Your task to perform on an android device: Open Android settings Image 0: 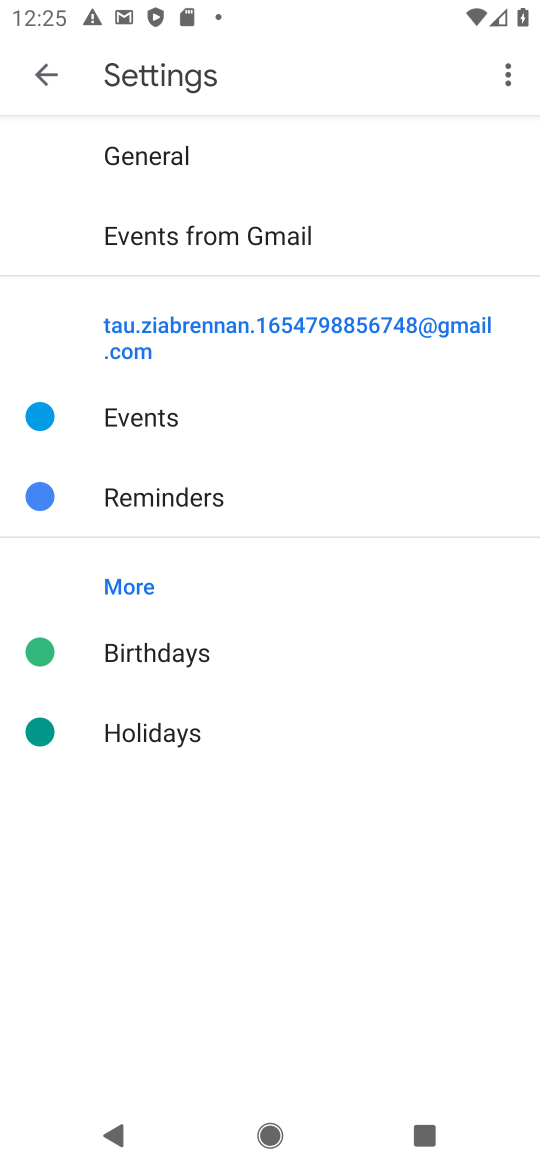
Step 0: drag from (205, 858) to (201, 169)
Your task to perform on an android device: Open Android settings Image 1: 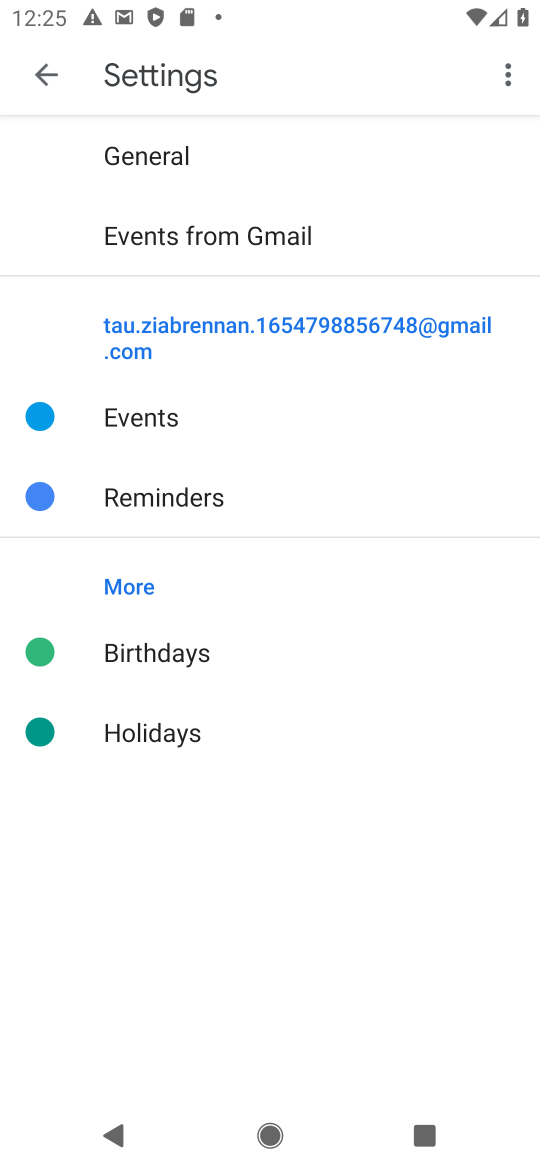
Step 1: drag from (266, 756) to (287, 186)
Your task to perform on an android device: Open Android settings Image 2: 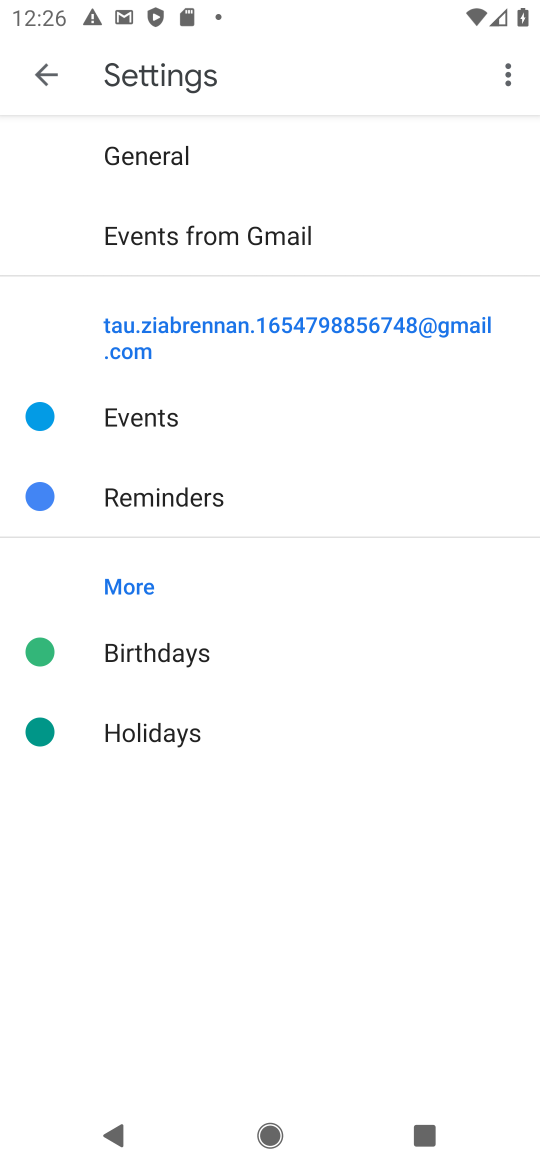
Step 2: drag from (276, 573) to (339, 176)
Your task to perform on an android device: Open Android settings Image 3: 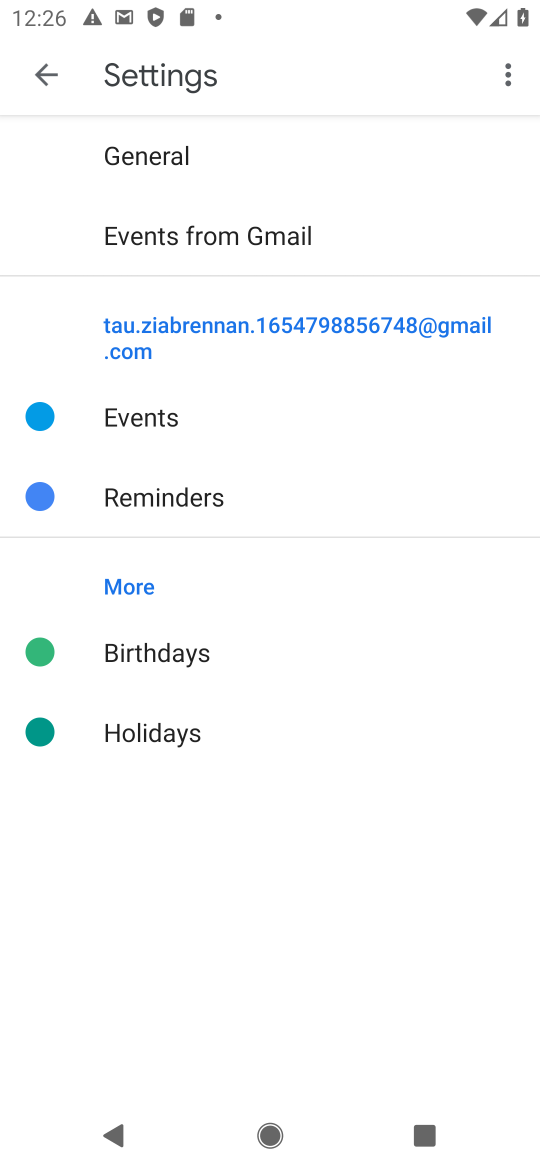
Step 3: drag from (315, 957) to (328, 430)
Your task to perform on an android device: Open Android settings Image 4: 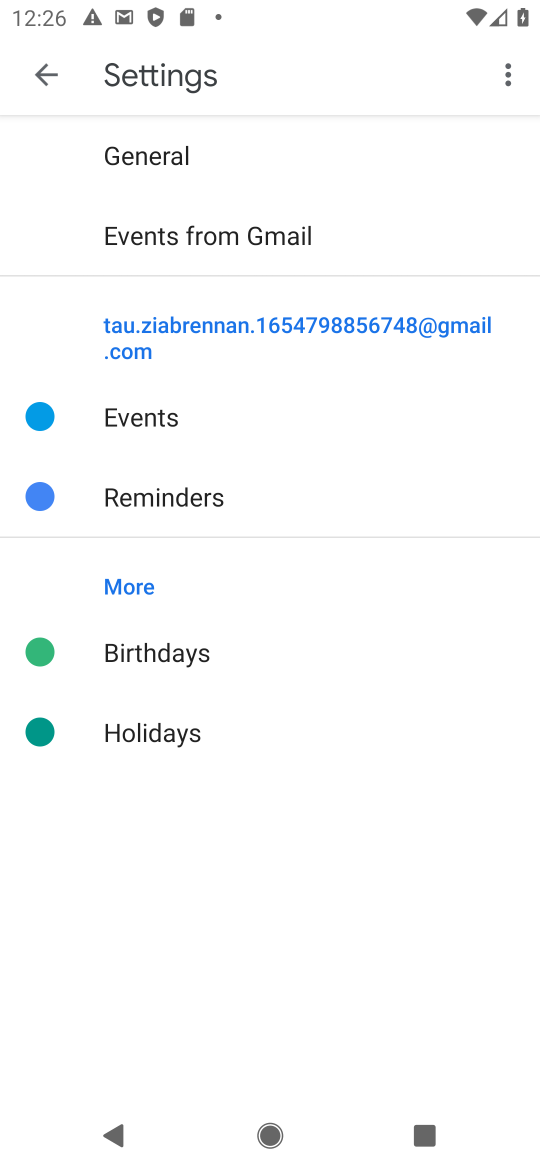
Step 4: press home button
Your task to perform on an android device: Open Android settings Image 5: 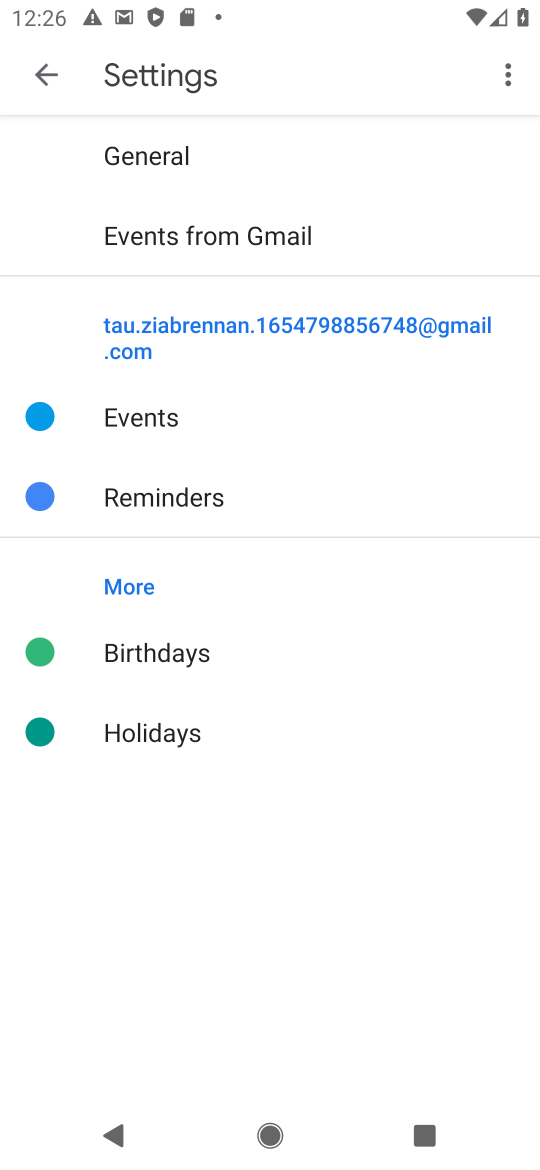
Step 5: drag from (314, 555) to (309, 277)
Your task to perform on an android device: Open Android settings Image 6: 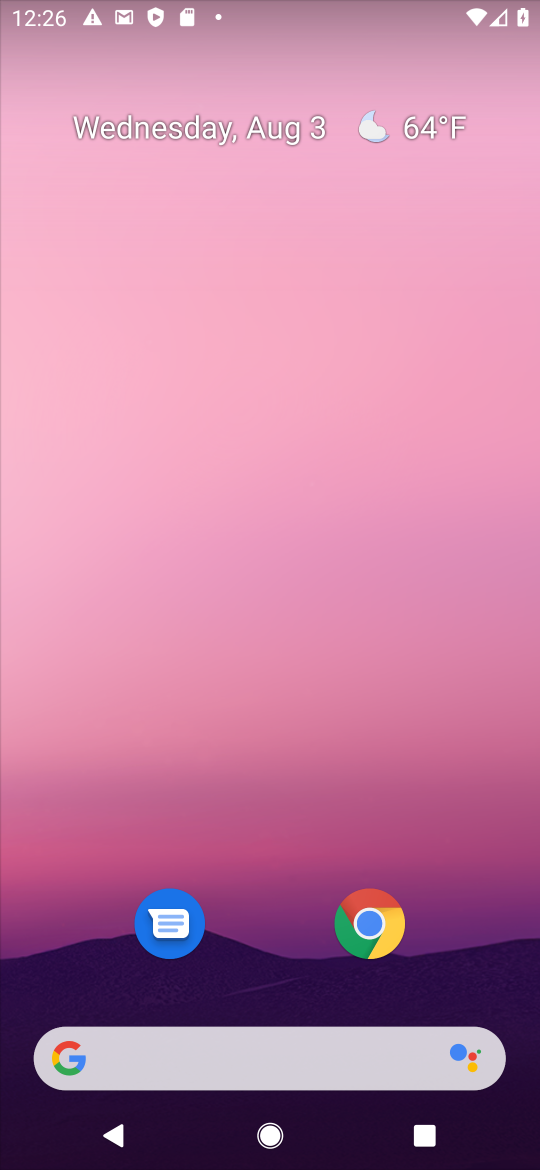
Step 6: drag from (258, 939) to (221, 369)
Your task to perform on an android device: Open Android settings Image 7: 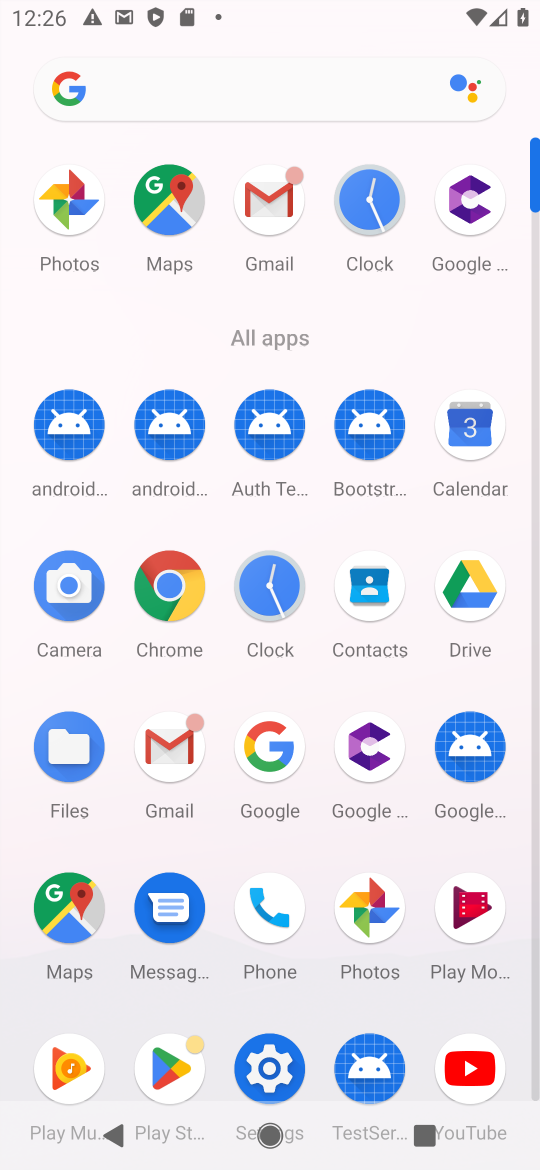
Step 7: click (256, 1060)
Your task to perform on an android device: Open Android settings Image 8: 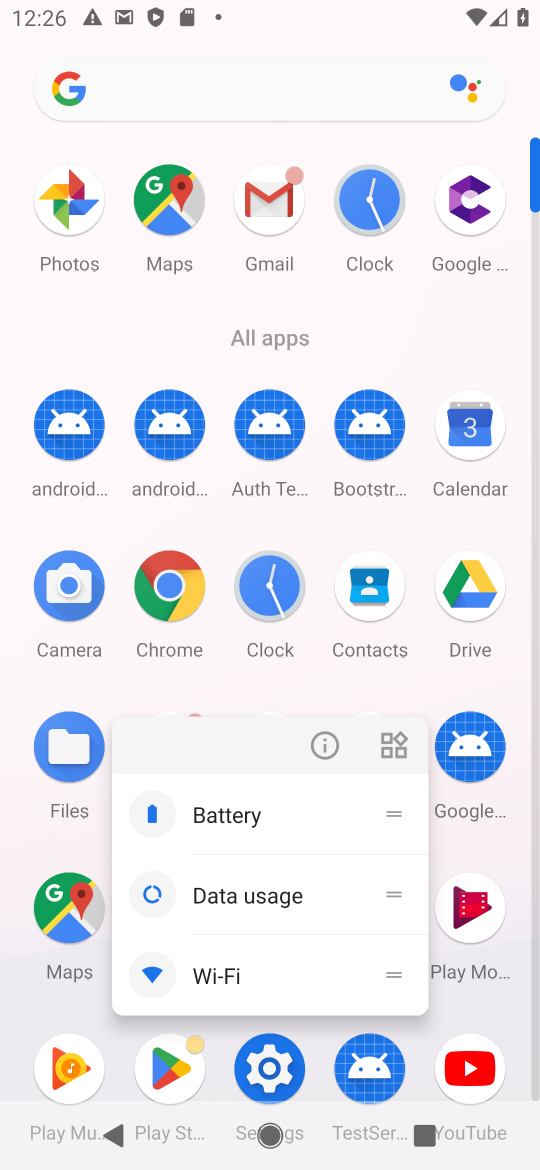
Step 8: click (326, 740)
Your task to perform on an android device: Open Android settings Image 9: 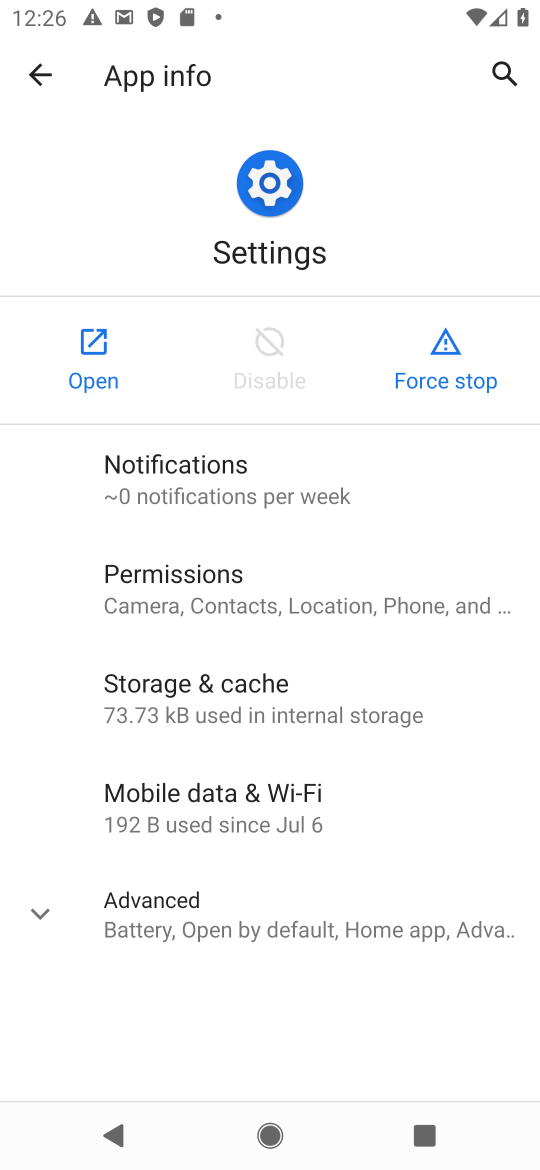
Step 9: click (86, 362)
Your task to perform on an android device: Open Android settings Image 10: 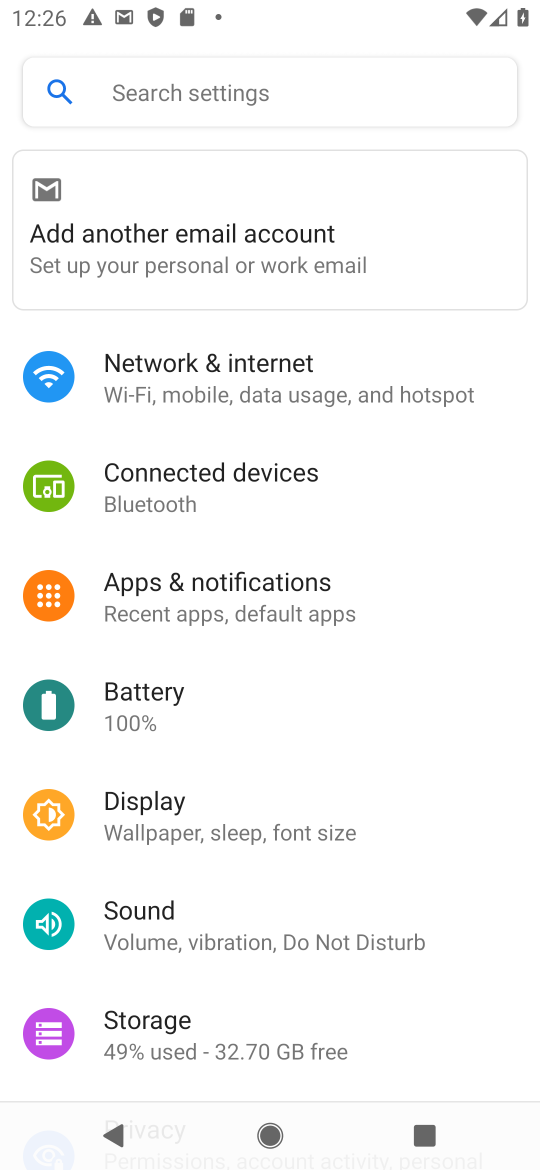
Step 10: drag from (265, 739) to (383, 144)
Your task to perform on an android device: Open Android settings Image 11: 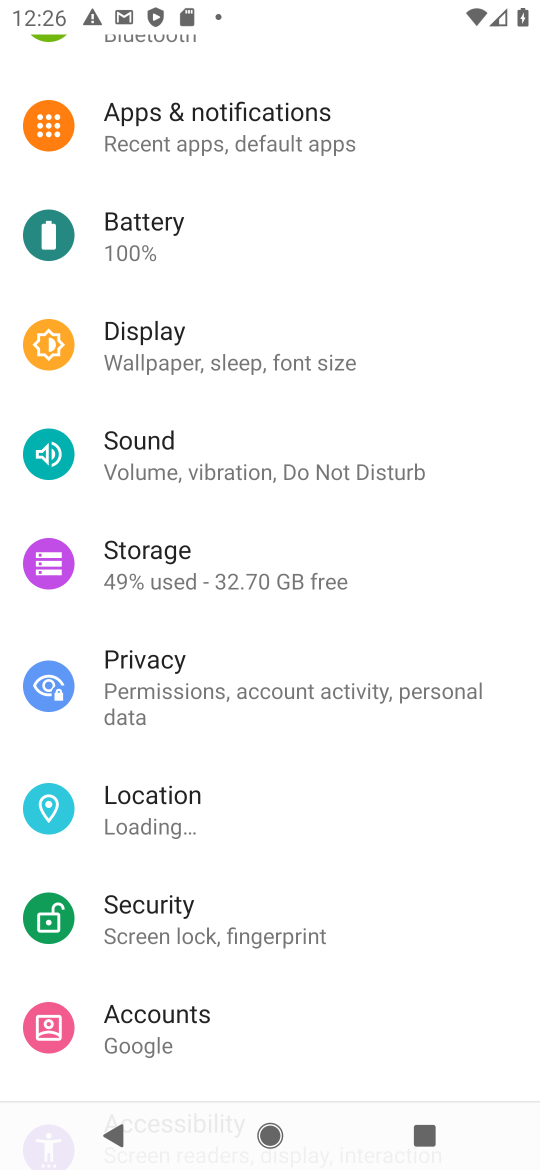
Step 11: drag from (223, 732) to (352, 274)
Your task to perform on an android device: Open Android settings Image 12: 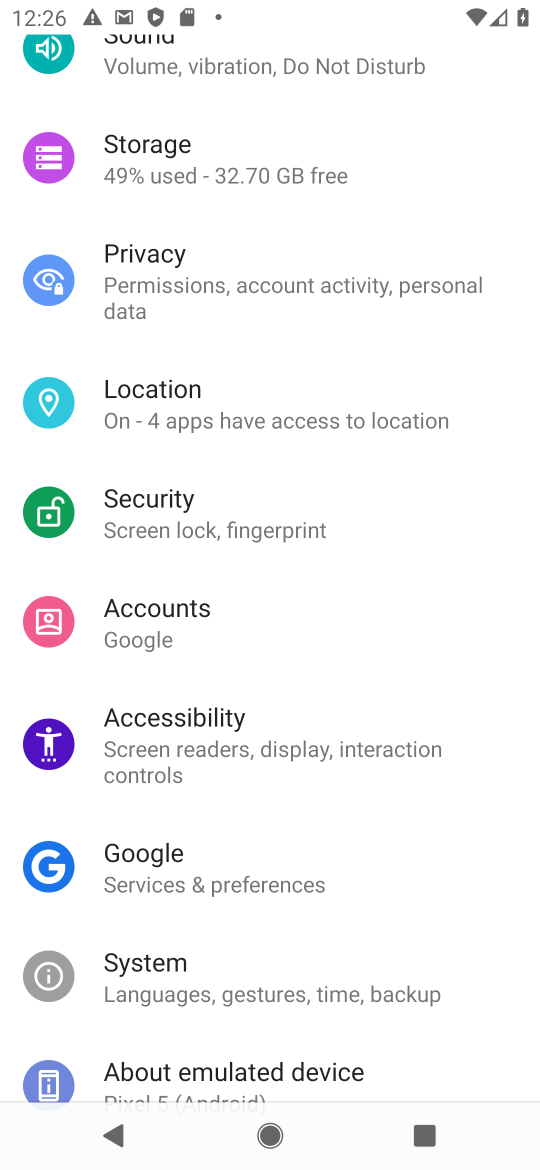
Step 12: drag from (267, 968) to (362, 326)
Your task to perform on an android device: Open Android settings Image 13: 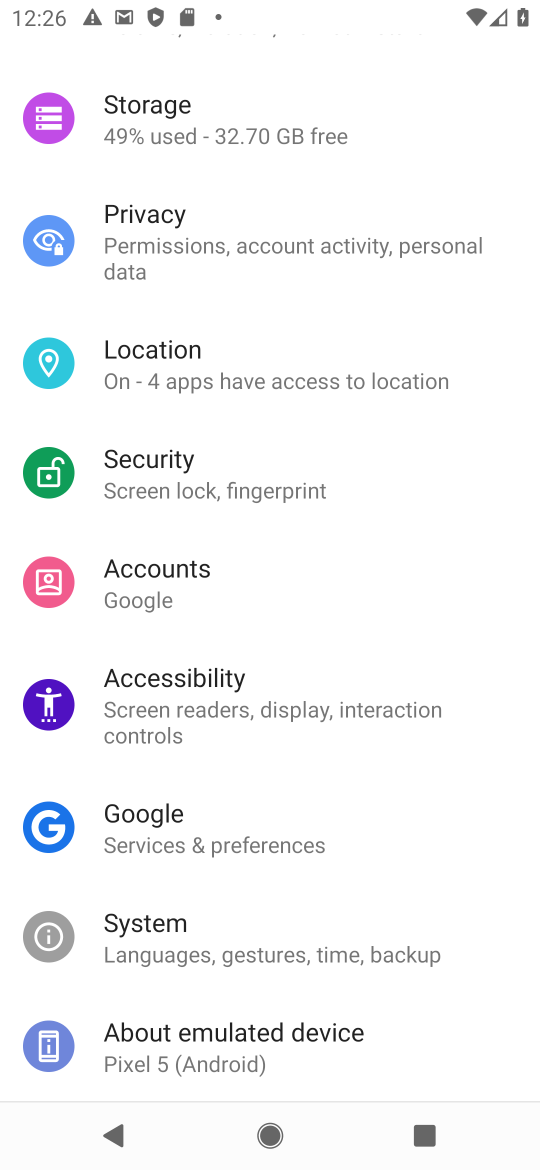
Step 13: click (206, 1028)
Your task to perform on an android device: Open Android settings Image 14: 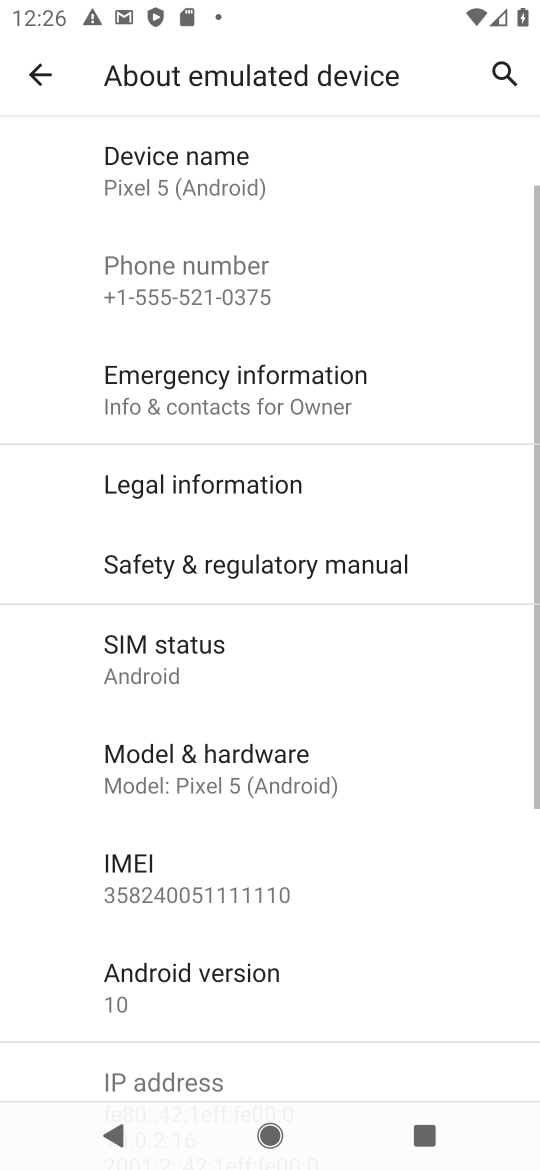
Step 14: drag from (235, 898) to (315, 700)
Your task to perform on an android device: Open Android settings Image 15: 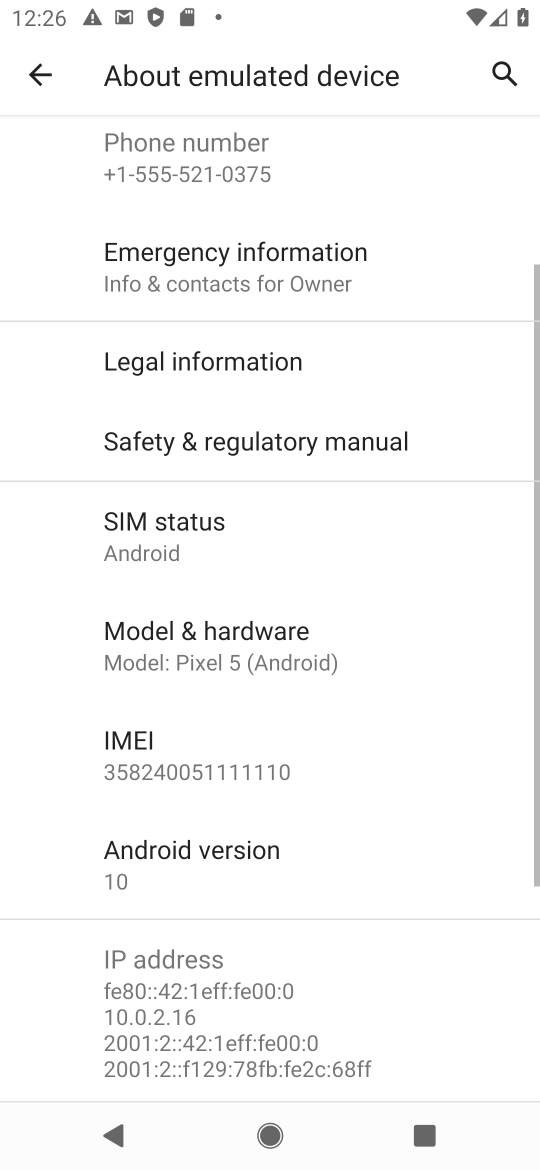
Step 15: click (226, 866)
Your task to perform on an android device: Open Android settings Image 16: 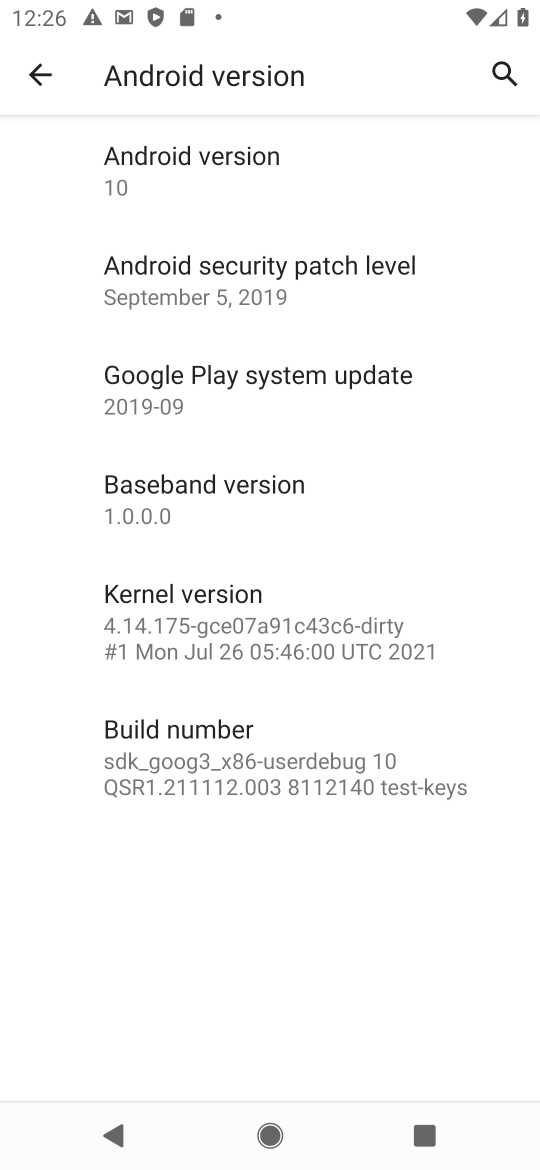
Step 16: click (296, 171)
Your task to perform on an android device: Open Android settings Image 17: 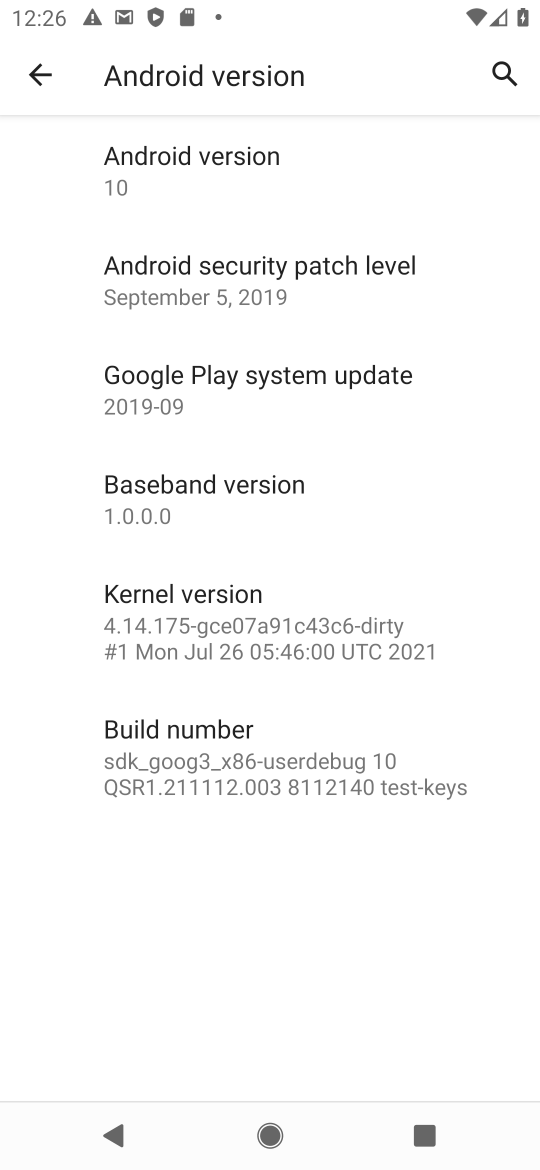
Step 17: task complete